Your task to perform on an android device: Add razer blade to the cart on newegg Image 0: 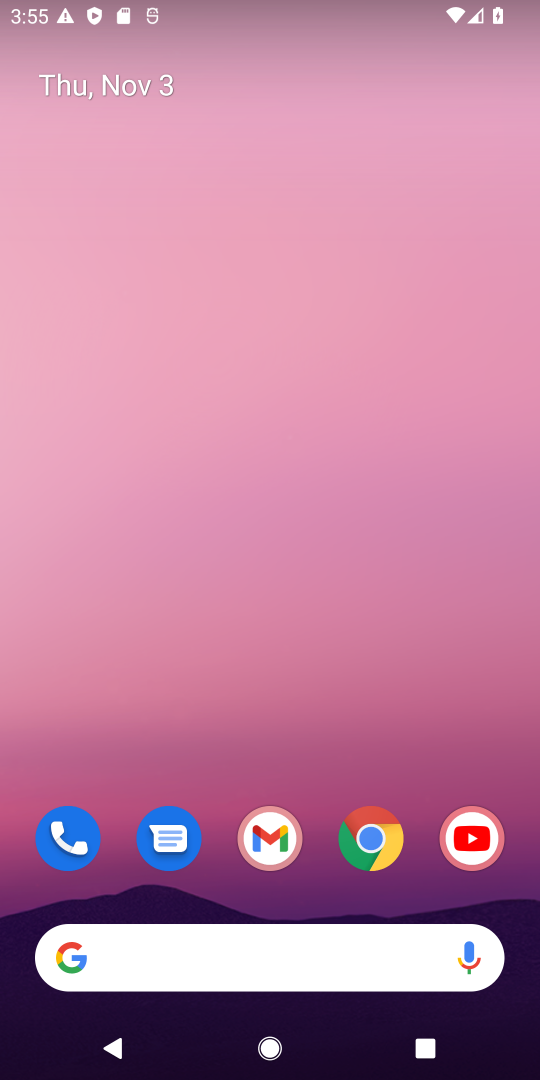
Step 0: drag from (318, 1025) to (357, 162)
Your task to perform on an android device: Add razer blade to the cart on newegg Image 1: 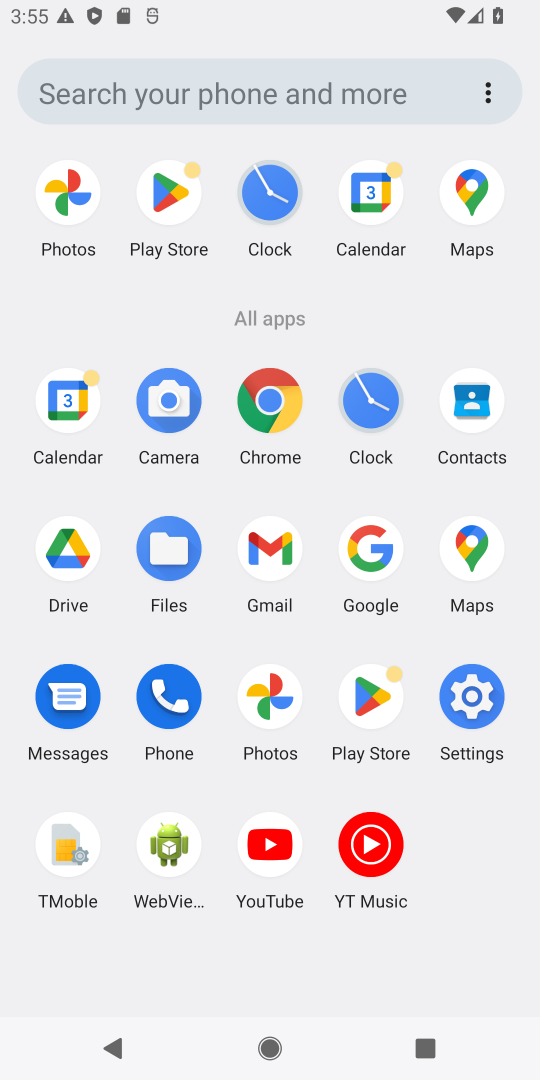
Step 1: click (277, 402)
Your task to perform on an android device: Add razer blade to the cart on newegg Image 2: 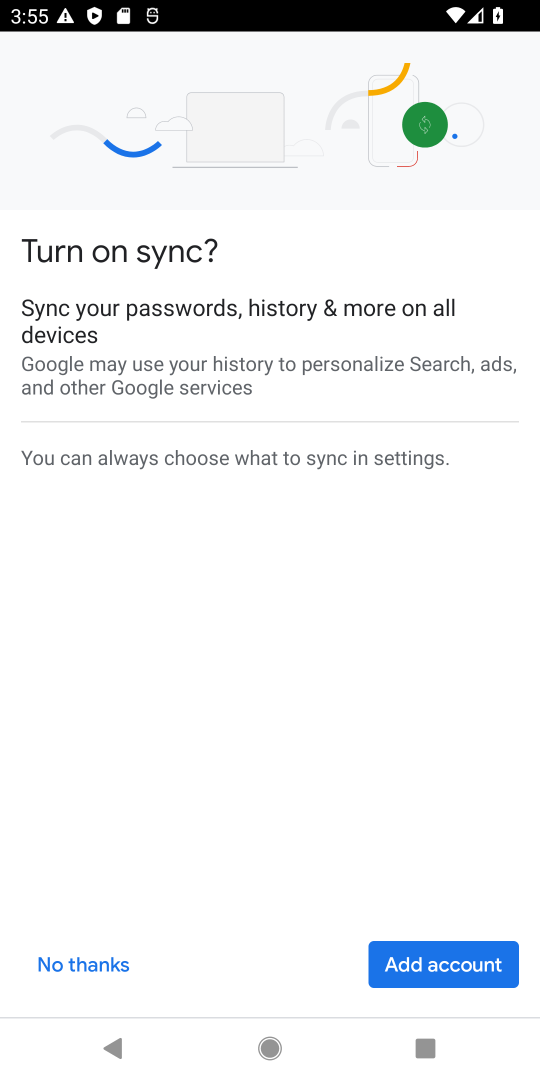
Step 2: click (430, 964)
Your task to perform on an android device: Add razer blade to the cart on newegg Image 3: 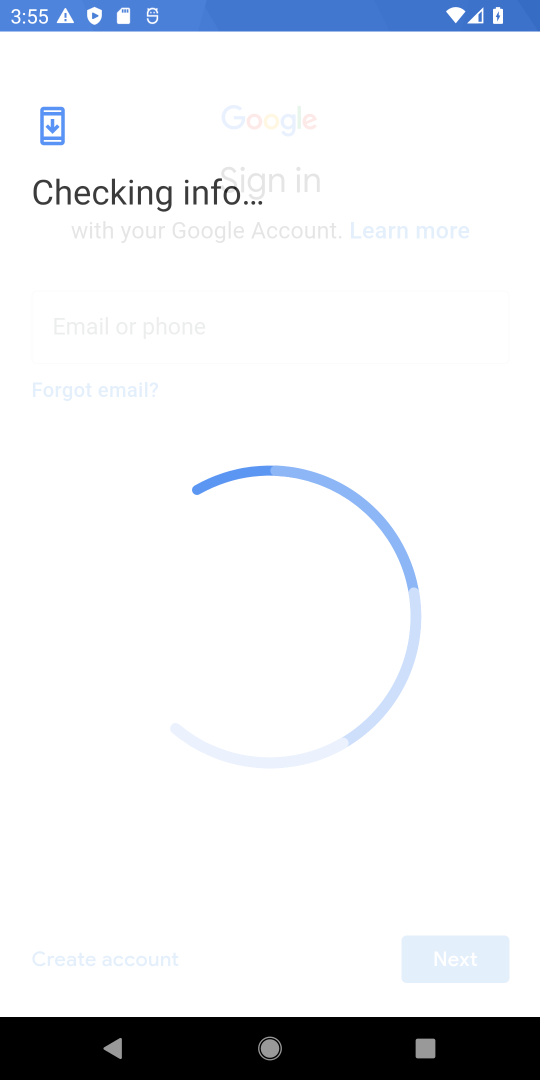
Step 3: press back button
Your task to perform on an android device: Add razer blade to the cart on newegg Image 4: 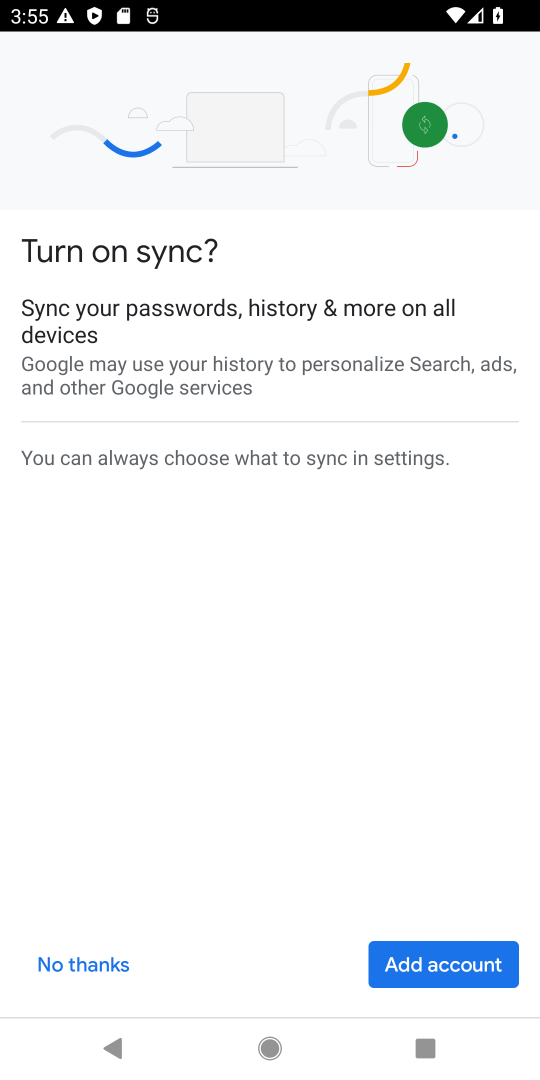
Step 4: click (78, 960)
Your task to perform on an android device: Add razer blade to the cart on newegg Image 5: 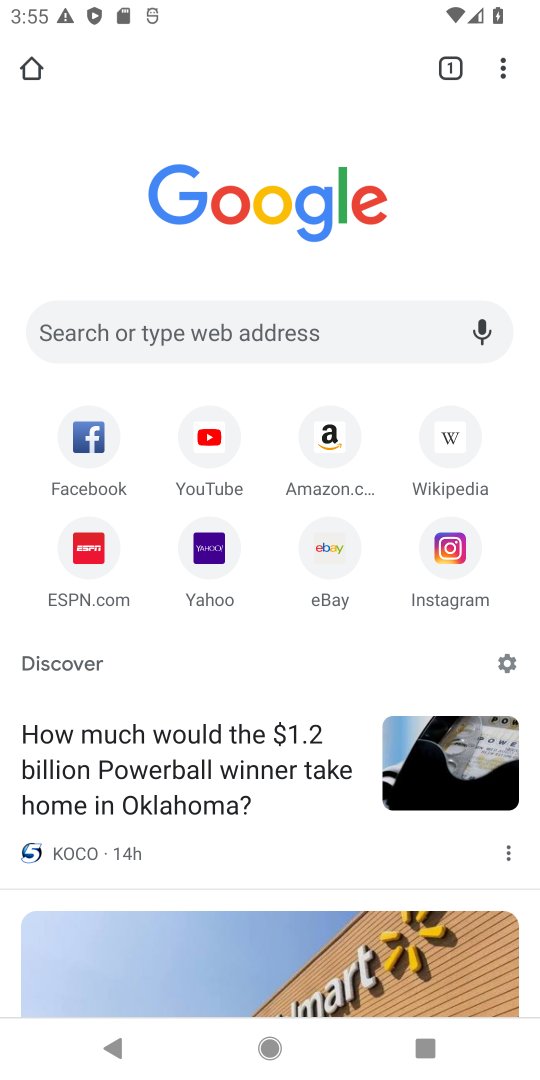
Step 5: click (202, 328)
Your task to perform on an android device: Add razer blade to the cart on newegg Image 6: 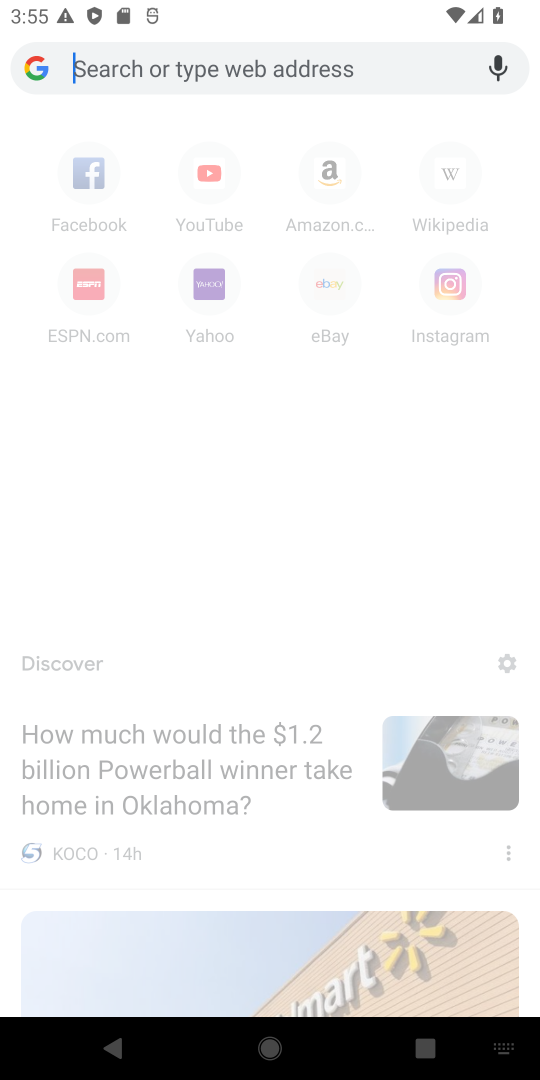
Step 6: type "newegg"
Your task to perform on an android device: Add razer blade to the cart on newegg Image 7: 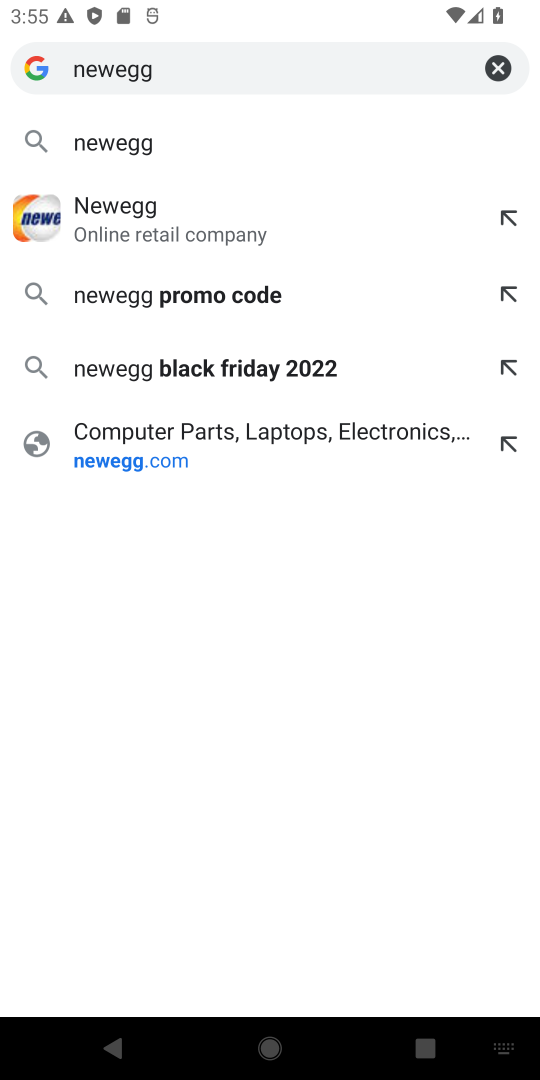
Step 7: click (106, 141)
Your task to perform on an android device: Add razer blade to the cart on newegg Image 8: 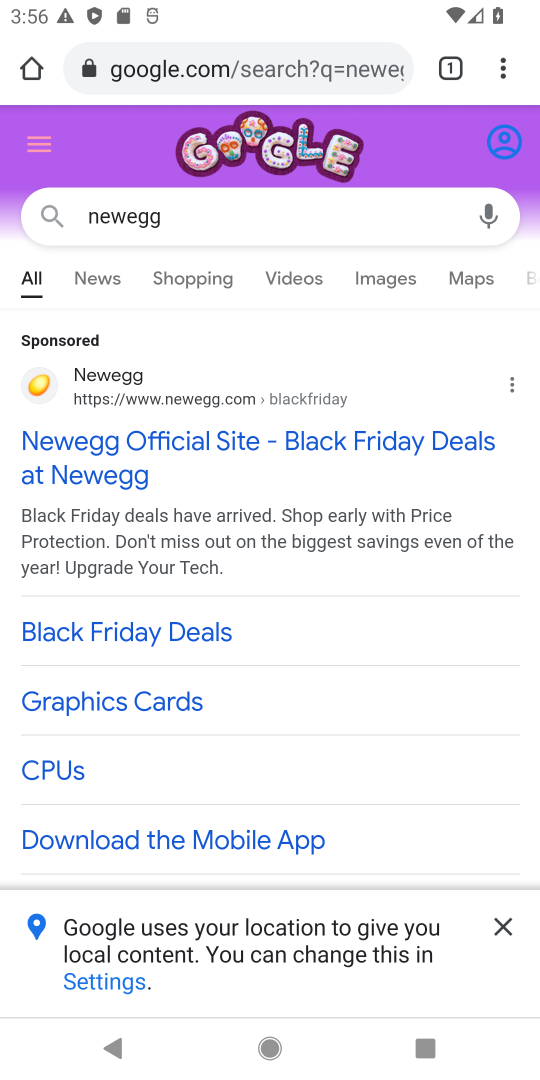
Step 8: click (120, 474)
Your task to perform on an android device: Add razer blade to the cart on newegg Image 9: 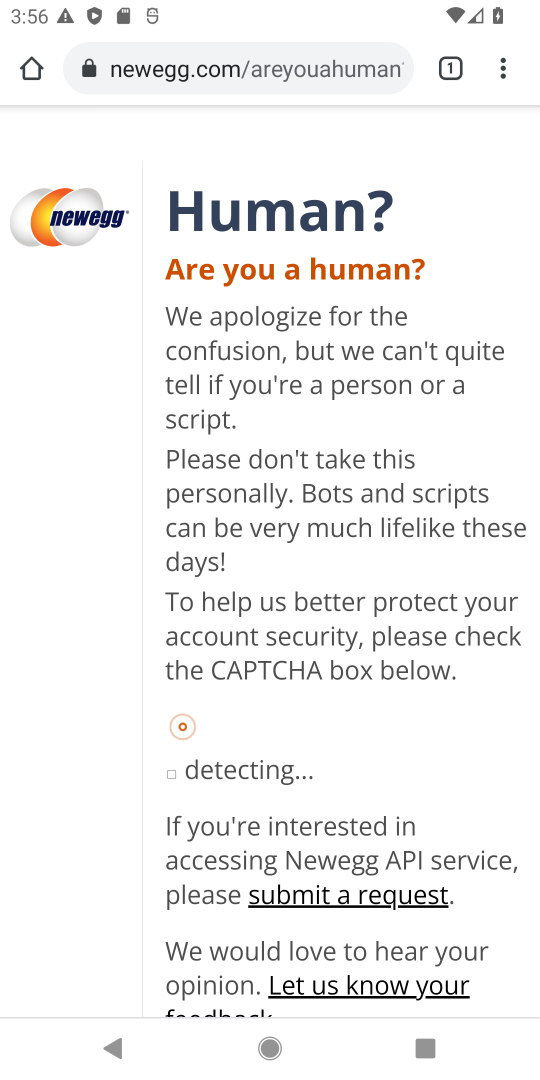
Step 9: drag from (365, 536) to (399, 281)
Your task to perform on an android device: Add razer blade to the cart on newegg Image 10: 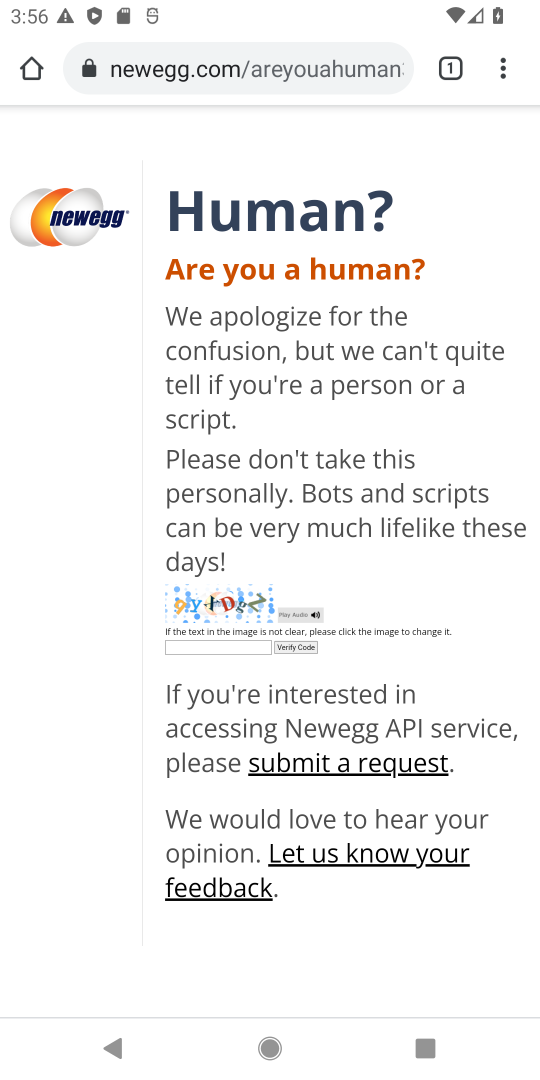
Step 10: click (228, 62)
Your task to perform on an android device: Add razer blade to the cart on newegg Image 11: 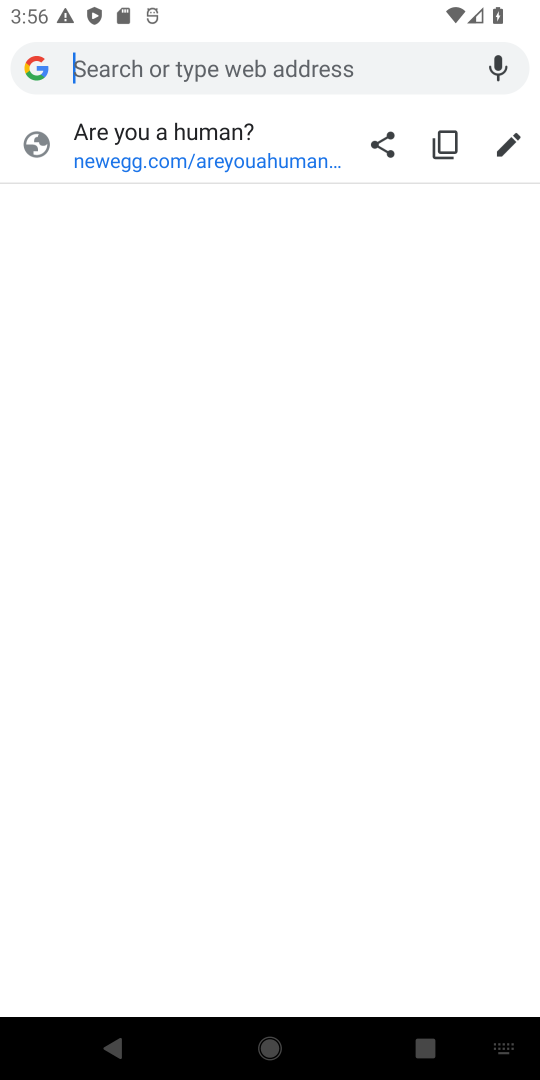
Step 11: type "newegg"
Your task to perform on an android device: Add razer blade to the cart on newegg Image 12: 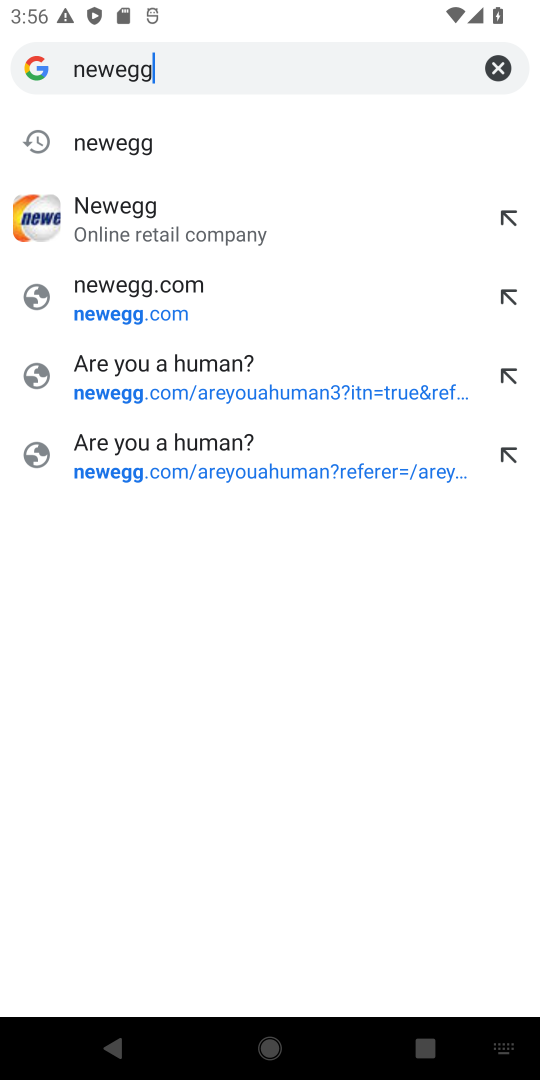
Step 12: click (128, 309)
Your task to perform on an android device: Add razer blade to the cart on newegg Image 13: 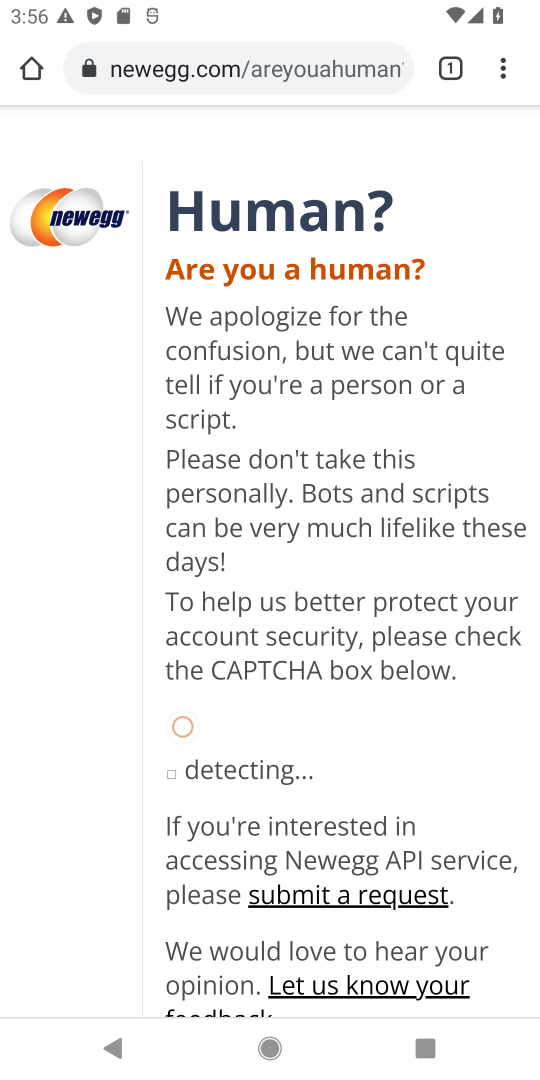
Step 13: task complete